Your task to perform on an android device: Show me the alarms in the clock app Image 0: 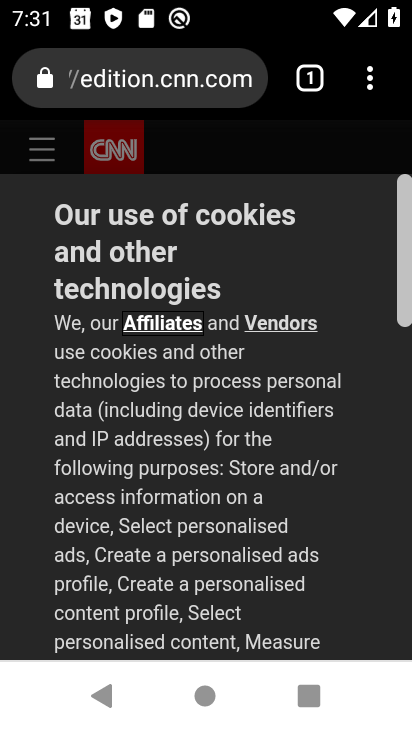
Step 0: press home button
Your task to perform on an android device: Show me the alarms in the clock app Image 1: 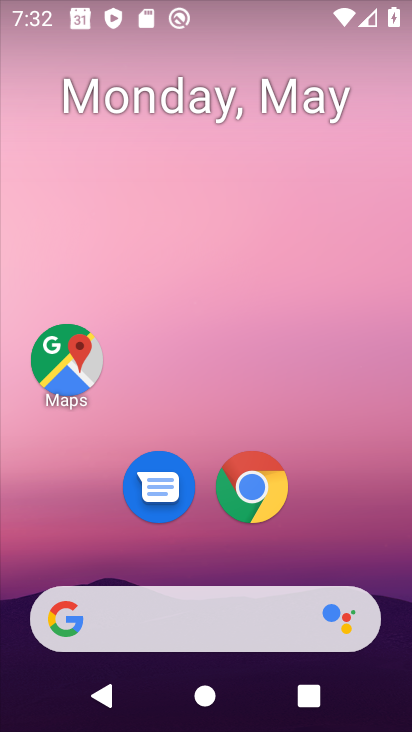
Step 1: drag from (186, 654) to (240, 78)
Your task to perform on an android device: Show me the alarms in the clock app Image 2: 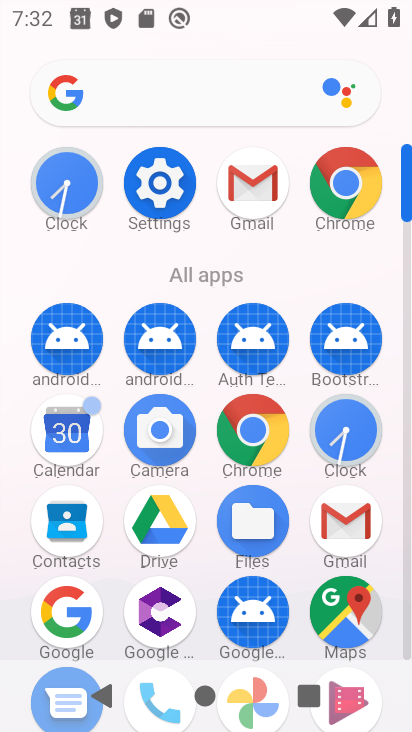
Step 2: click (334, 441)
Your task to perform on an android device: Show me the alarms in the clock app Image 3: 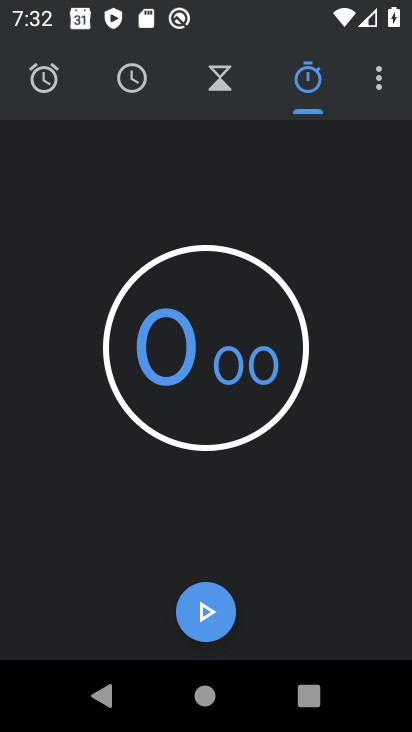
Step 3: click (38, 81)
Your task to perform on an android device: Show me the alarms in the clock app Image 4: 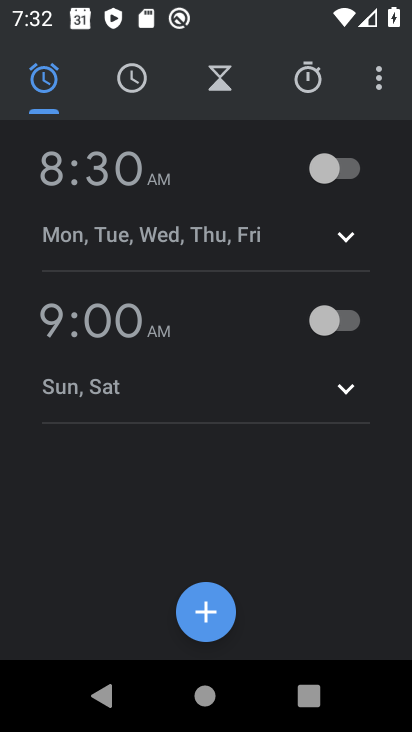
Step 4: task complete